Your task to perform on an android device: move a message to another label in the gmail app Image 0: 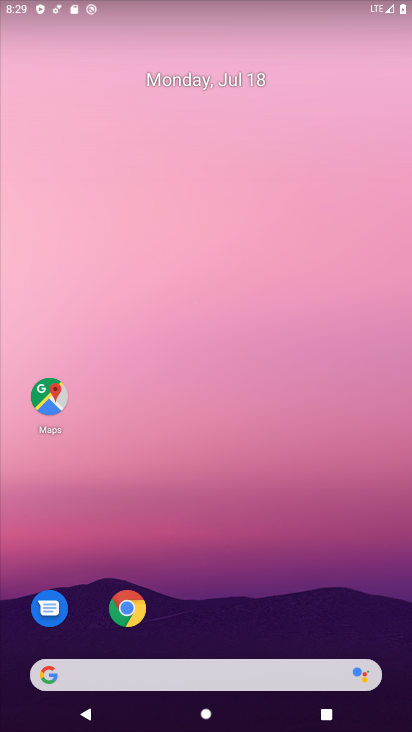
Step 0: drag from (249, 644) to (243, 200)
Your task to perform on an android device: move a message to another label in the gmail app Image 1: 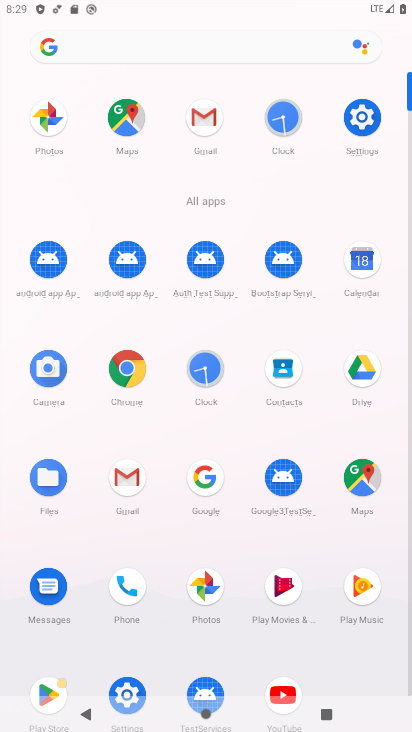
Step 1: click (210, 112)
Your task to perform on an android device: move a message to another label in the gmail app Image 2: 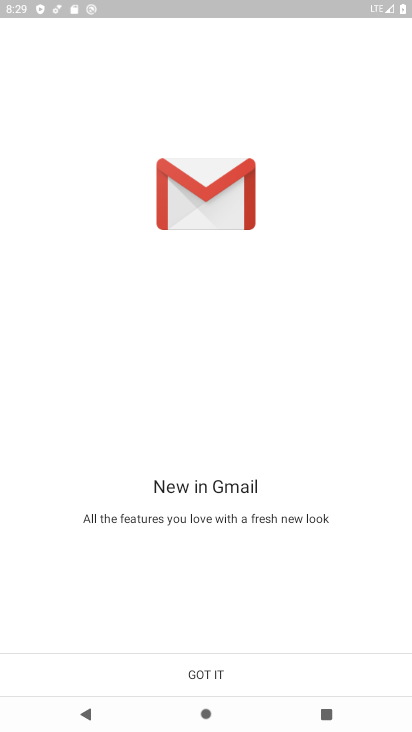
Step 2: click (232, 677)
Your task to perform on an android device: move a message to another label in the gmail app Image 3: 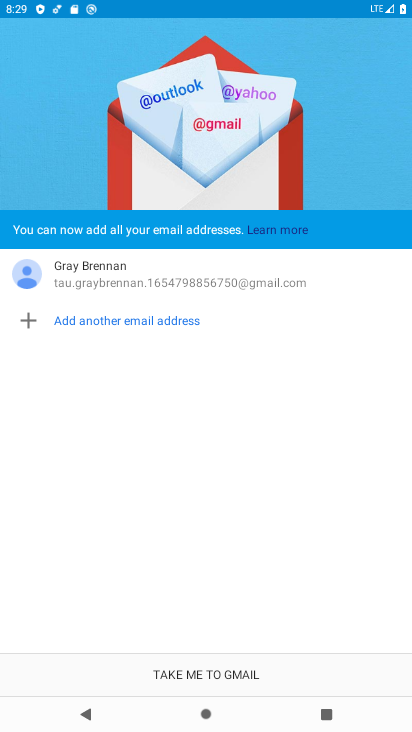
Step 3: click (232, 677)
Your task to perform on an android device: move a message to another label in the gmail app Image 4: 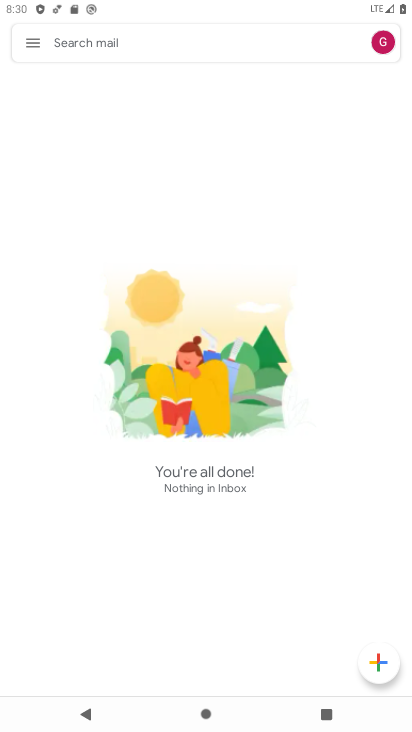
Step 4: task complete